Your task to perform on an android device: toggle translation in the chrome app Image 0: 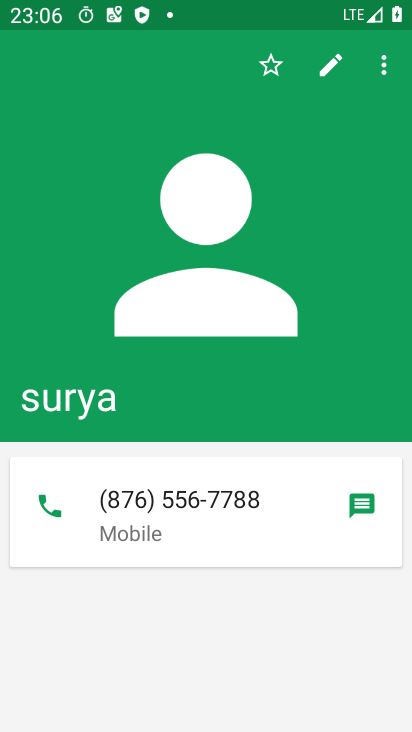
Step 0: press home button
Your task to perform on an android device: toggle translation in the chrome app Image 1: 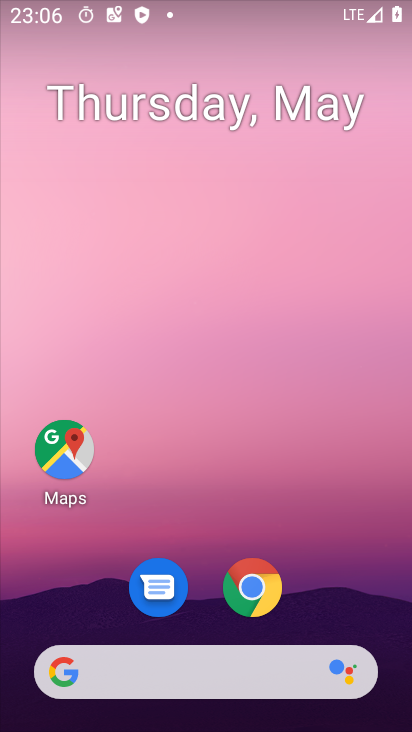
Step 1: click (255, 587)
Your task to perform on an android device: toggle translation in the chrome app Image 2: 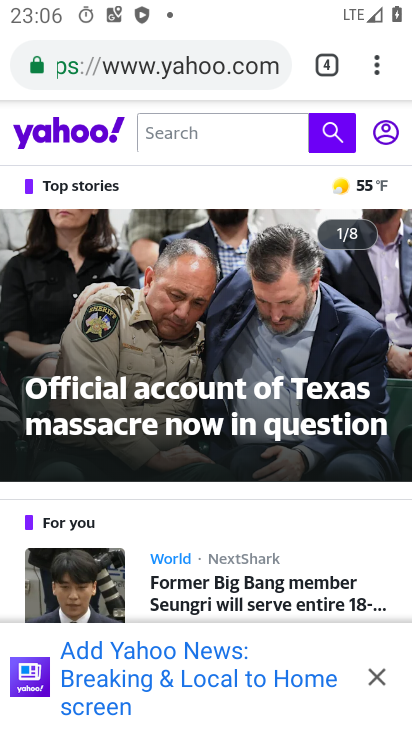
Step 2: click (374, 65)
Your task to perform on an android device: toggle translation in the chrome app Image 3: 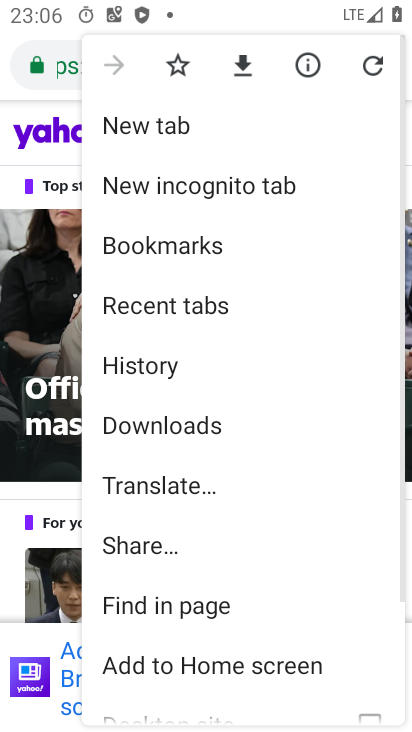
Step 3: drag from (255, 500) to (277, 147)
Your task to perform on an android device: toggle translation in the chrome app Image 4: 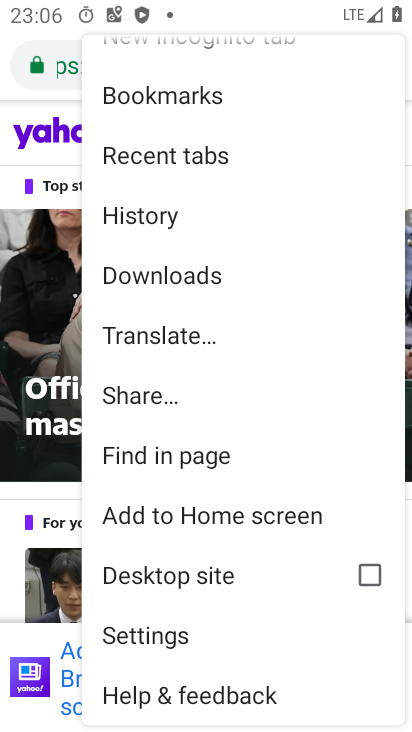
Step 4: click (137, 636)
Your task to perform on an android device: toggle translation in the chrome app Image 5: 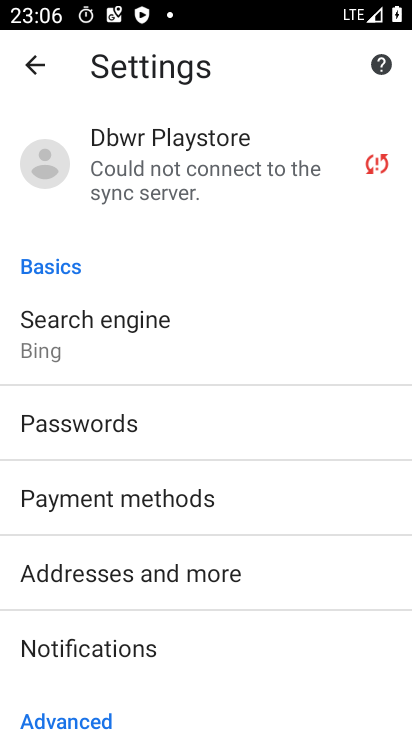
Step 5: drag from (209, 637) to (220, 249)
Your task to perform on an android device: toggle translation in the chrome app Image 6: 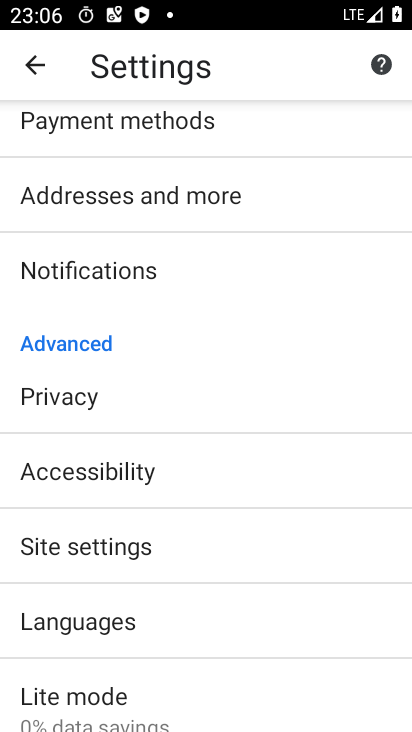
Step 6: click (72, 621)
Your task to perform on an android device: toggle translation in the chrome app Image 7: 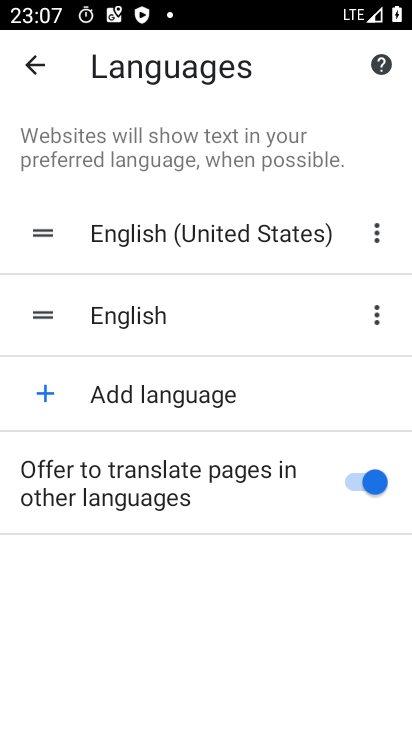
Step 7: click (379, 477)
Your task to perform on an android device: toggle translation in the chrome app Image 8: 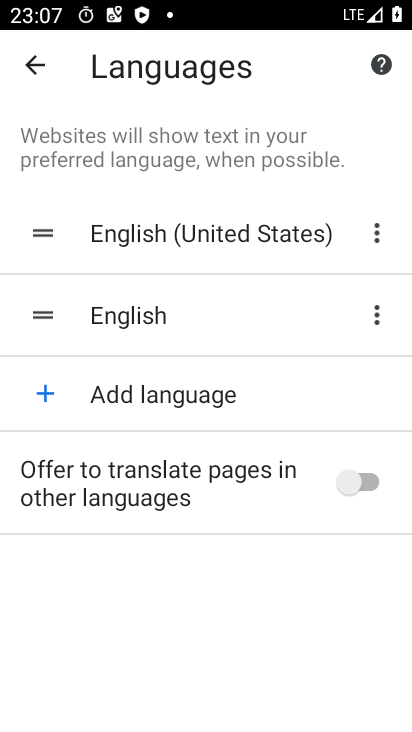
Step 8: task complete